Your task to perform on an android device: turn notification dots off Image 0: 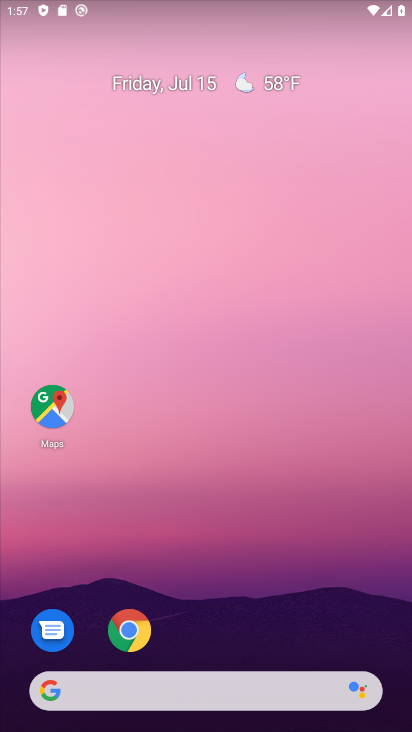
Step 0: drag from (361, 592) to (387, 77)
Your task to perform on an android device: turn notification dots off Image 1: 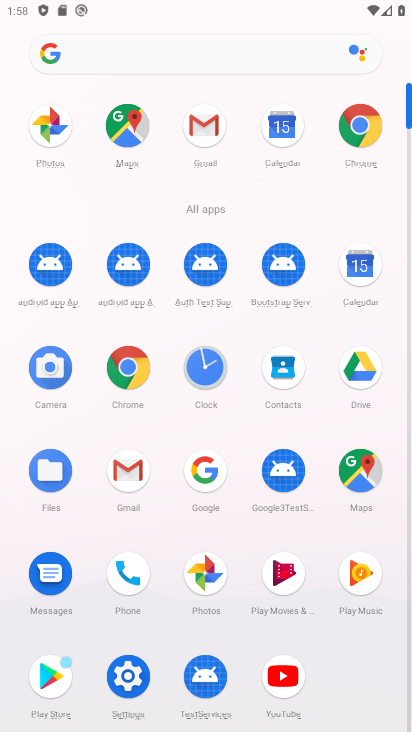
Step 1: click (123, 677)
Your task to perform on an android device: turn notification dots off Image 2: 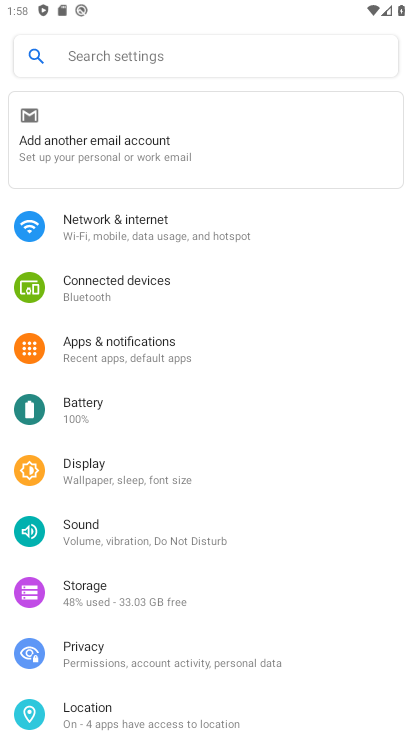
Step 2: drag from (357, 554) to (364, 495)
Your task to perform on an android device: turn notification dots off Image 3: 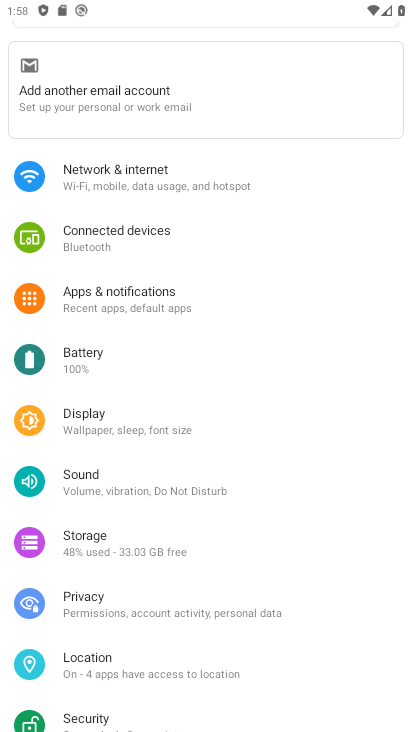
Step 3: drag from (362, 641) to (351, 544)
Your task to perform on an android device: turn notification dots off Image 4: 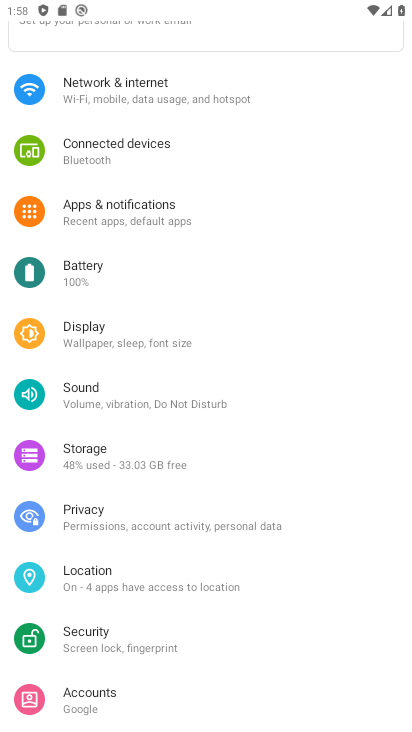
Step 4: drag from (338, 623) to (329, 535)
Your task to perform on an android device: turn notification dots off Image 5: 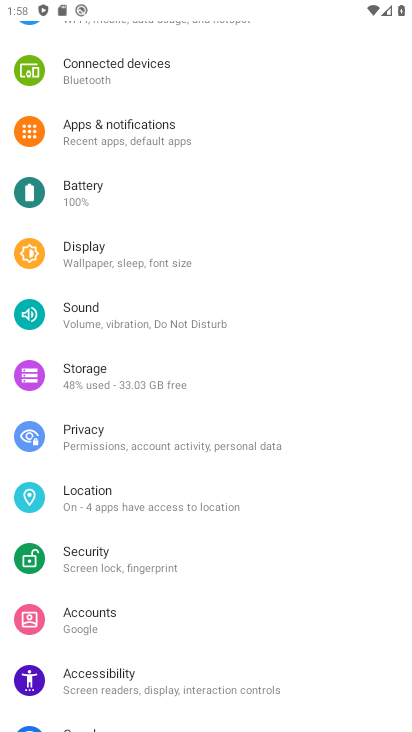
Step 5: drag from (338, 596) to (335, 501)
Your task to perform on an android device: turn notification dots off Image 6: 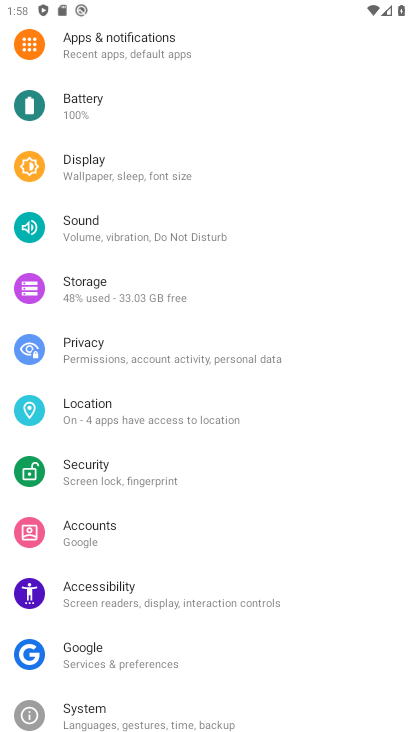
Step 6: drag from (333, 631) to (334, 537)
Your task to perform on an android device: turn notification dots off Image 7: 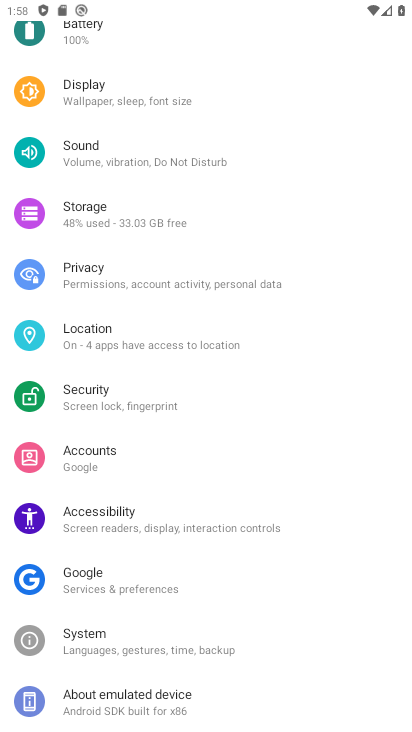
Step 7: drag from (331, 630) to (337, 540)
Your task to perform on an android device: turn notification dots off Image 8: 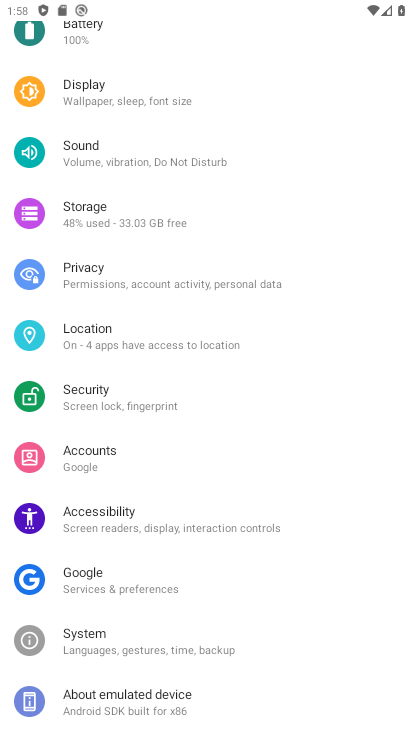
Step 8: drag from (343, 257) to (344, 339)
Your task to perform on an android device: turn notification dots off Image 9: 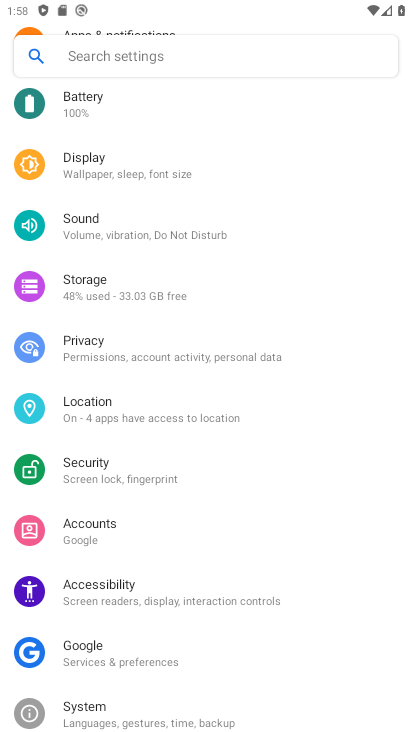
Step 9: drag from (341, 253) to (341, 356)
Your task to perform on an android device: turn notification dots off Image 10: 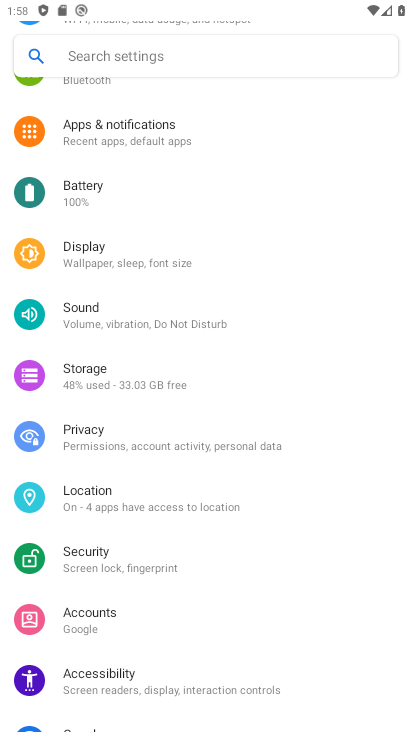
Step 10: drag from (341, 195) to (332, 391)
Your task to perform on an android device: turn notification dots off Image 11: 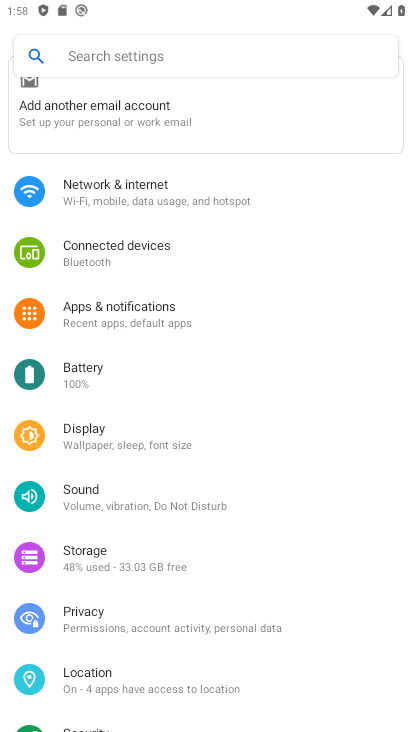
Step 11: click (209, 332)
Your task to perform on an android device: turn notification dots off Image 12: 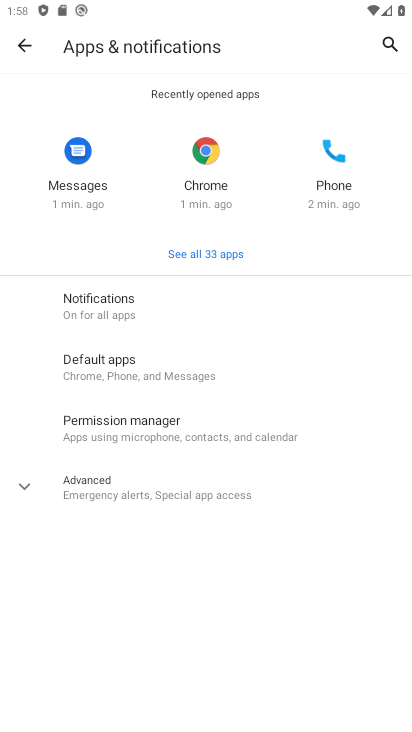
Step 12: click (166, 312)
Your task to perform on an android device: turn notification dots off Image 13: 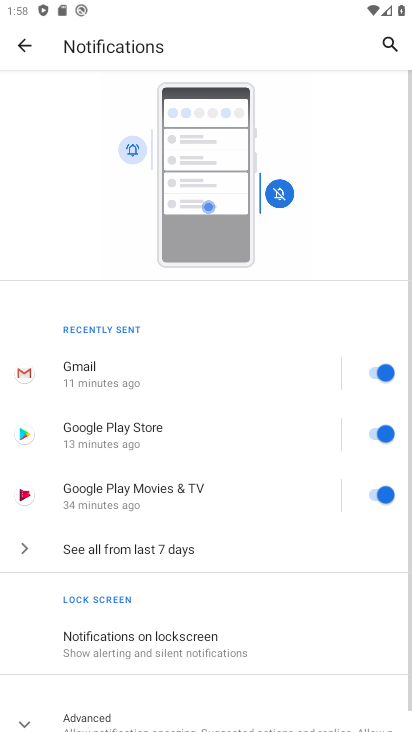
Step 13: drag from (222, 385) to (223, 323)
Your task to perform on an android device: turn notification dots off Image 14: 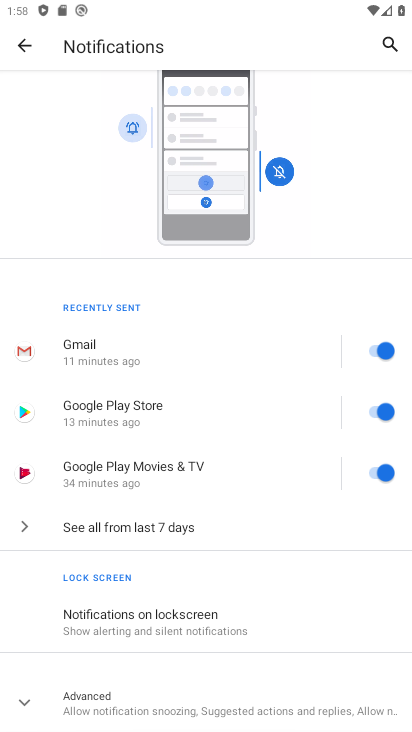
Step 14: drag from (241, 441) to (243, 373)
Your task to perform on an android device: turn notification dots off Image 15: 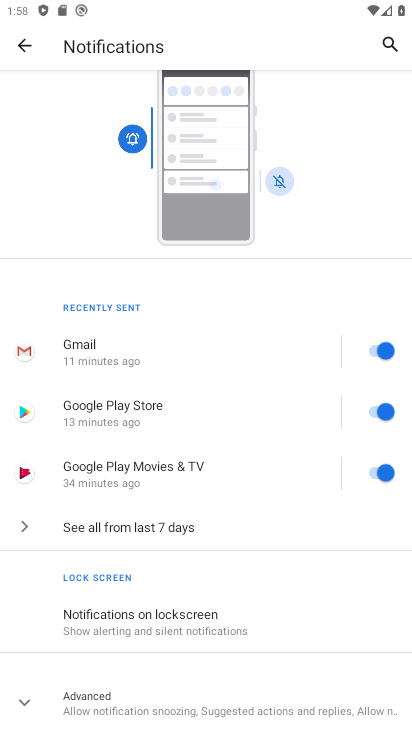
Step 15: click (234, 687)
Your task to perform on an android device: turn notification dots off Image 16: 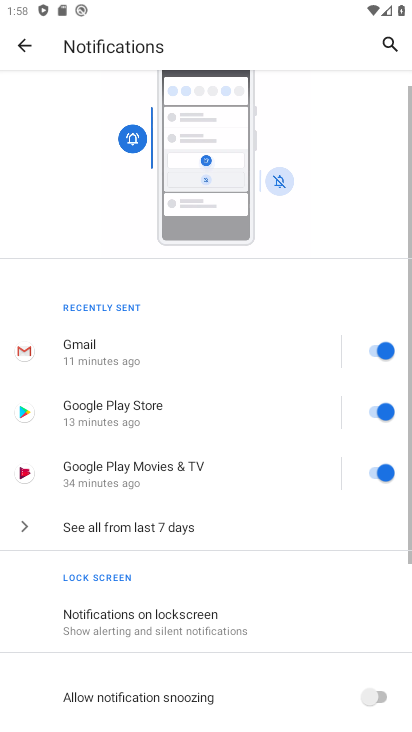
Step 16: drag from (309, 578) to (309, 505)
Your task to perform on an android device: turn notification dots off Image 17: 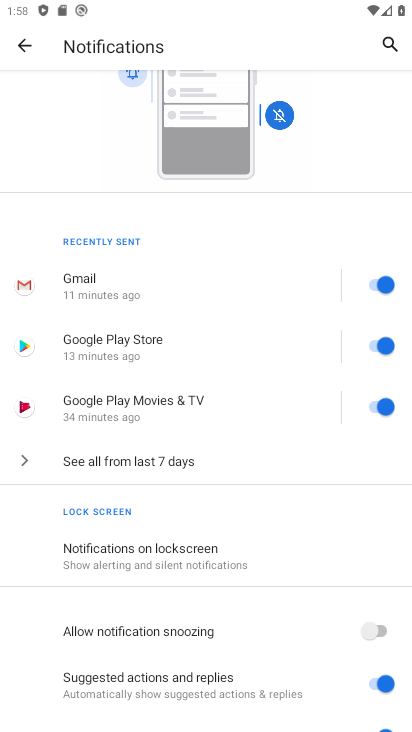
Step 17: drag from (298, 581) to (307, 492)
Your task to perform on an android device: turn notification dots off Image 18: 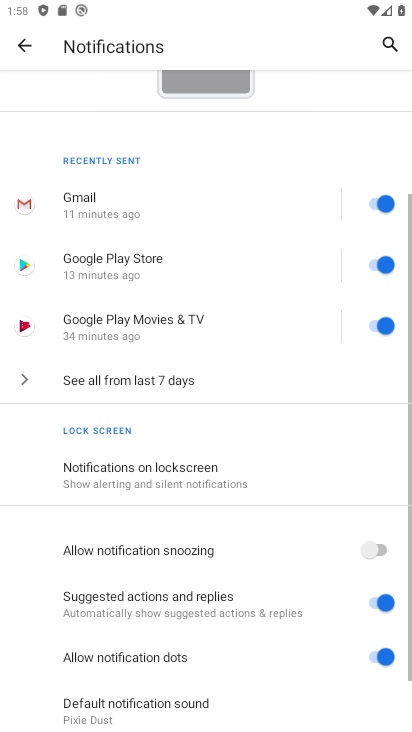
Step 18: drag from (305, 542) to (305, 433)
Your task to perform on an android device: turn notification dots off Image 19: 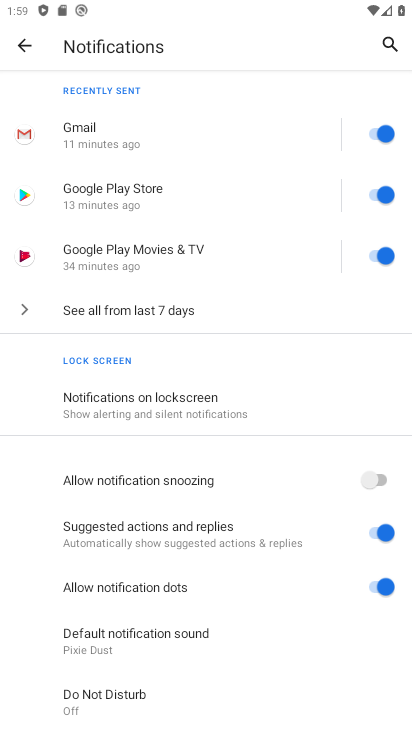
Step 19: click (382, 593)
Your task to perform on an android device: turn notification dots off Image 20: 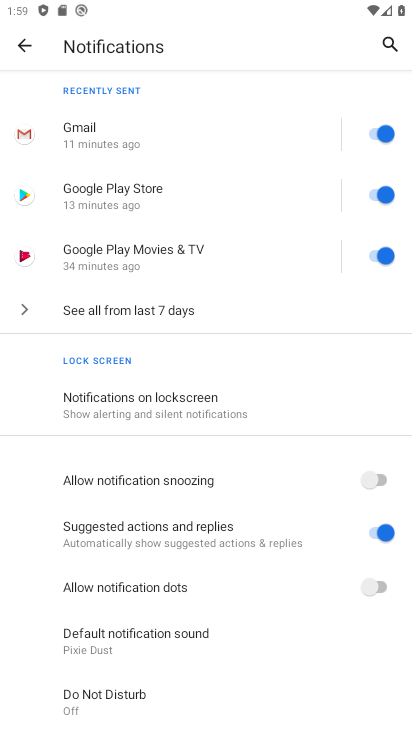
Step 20: task complete